Your task to perform on an android device: See recent photos Image 0: 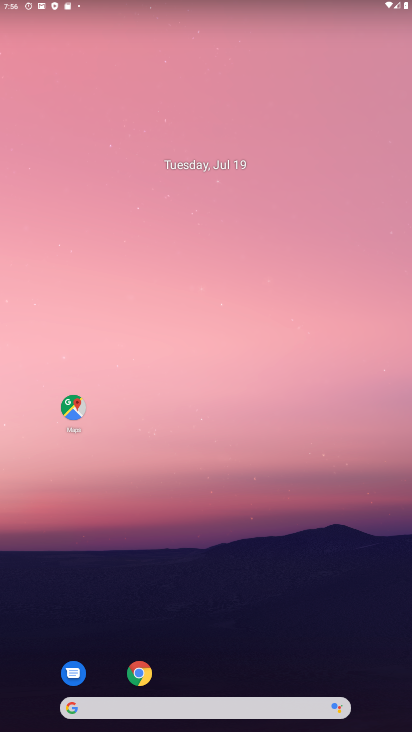
Step 0: drag from (211, 697) to (311, 199)
Your task to perform on an android device: See recent photos Image 1: 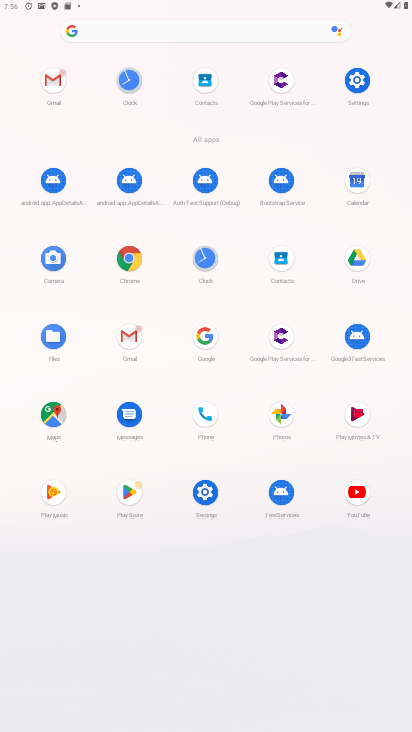
Step 1: click (286, 409)
Your task to perform on an android device: See recent photos Image 2: 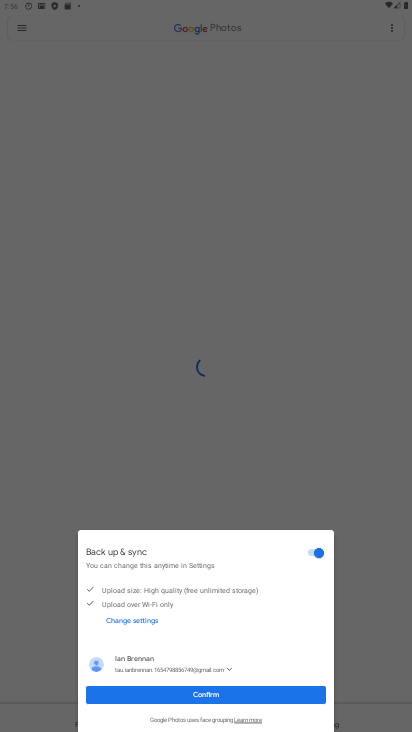
Step 2: click (218, 691)
Your task to perform on an android device: See recent photos Image 3: 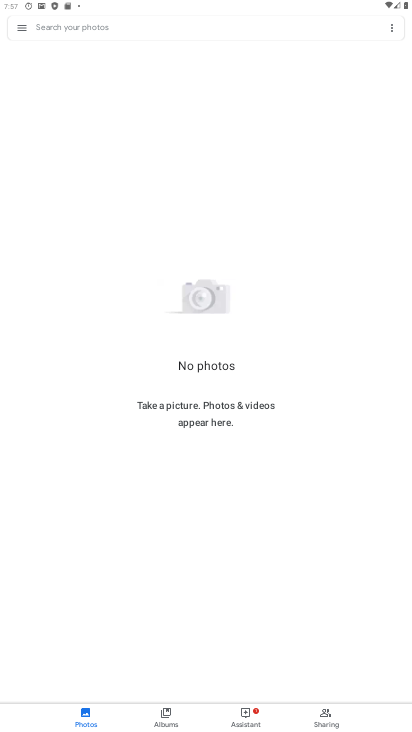
Step 3: task complete